Your task to perform on an android device: turn on improve location accuracy Image 0: 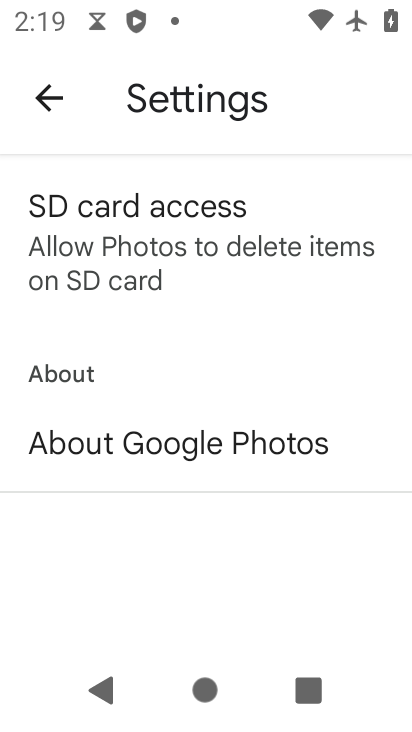
Step 0: press home button
Your task to perform on an android device: turn on improve location accuracy Image 1: 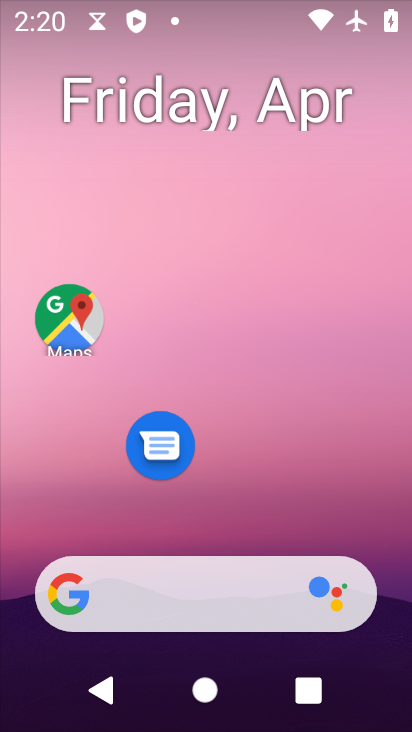
Step 1: drag from (277, 521) to (255, 204)
Your task to perform on an android device: turn on improve location accuracy Image 2: 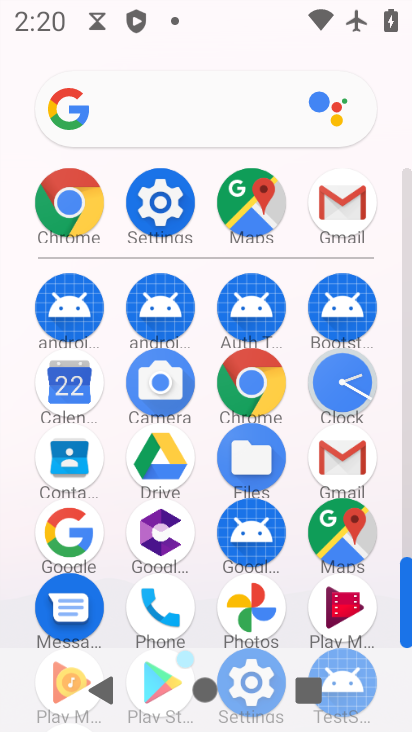
Step 2: click (174, 211)
Your task to perform on an android device: turn on improve location accuracy Image 3: 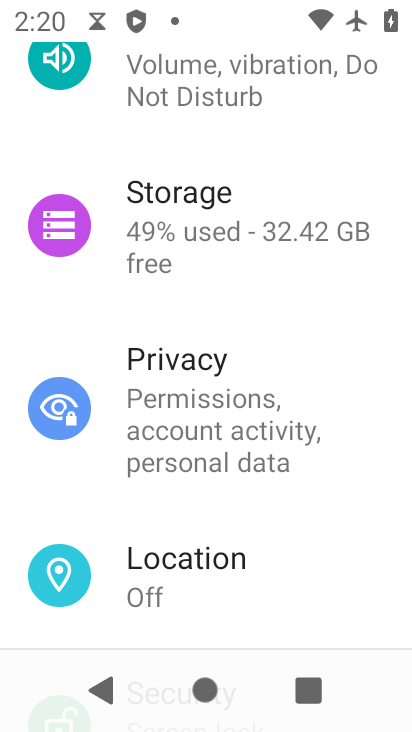
Step 3: click (259, 564)
Your task to perform on an android device: turn on improve location accuracy Image 4: 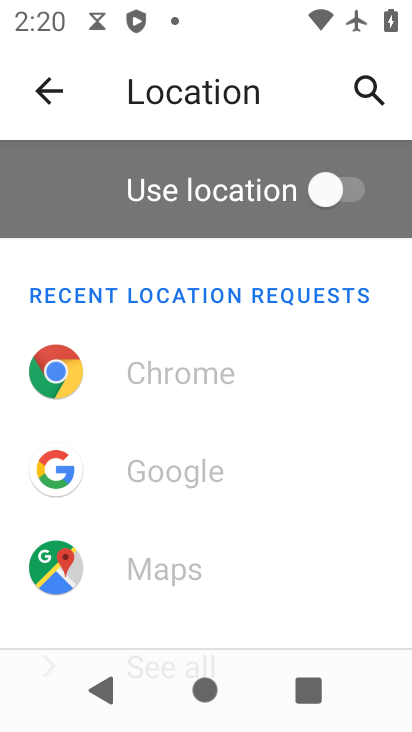
Step 4: drag from (275, 536) to (249, 253)
Your task to perform on an android device: turn on improve location accuracy Image 5: 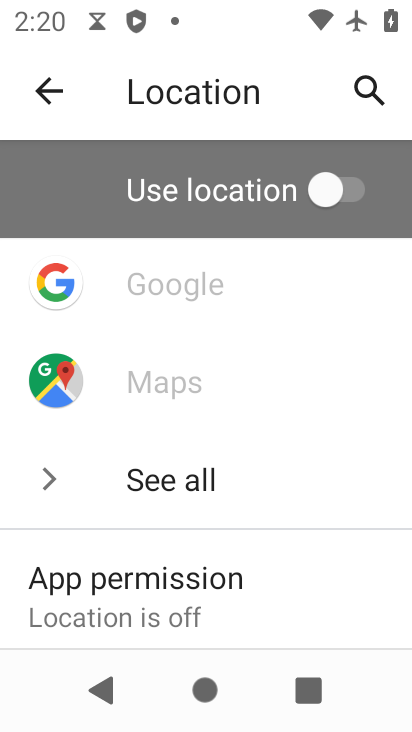
Step 5: drag from (229, 592) to (205, 360)
Your task to perform on an android device: turn on improve location accuracy Image 6: 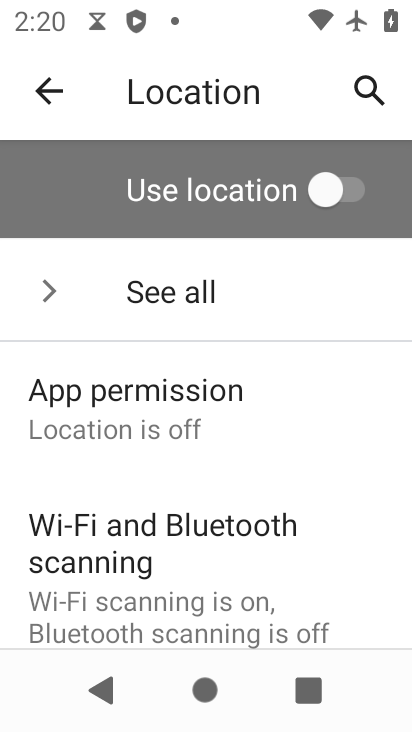
Step 6: drag from (247, 565) to (241, 383)
Your task to perform on an android device: turn on improve location accuracy Image 7: 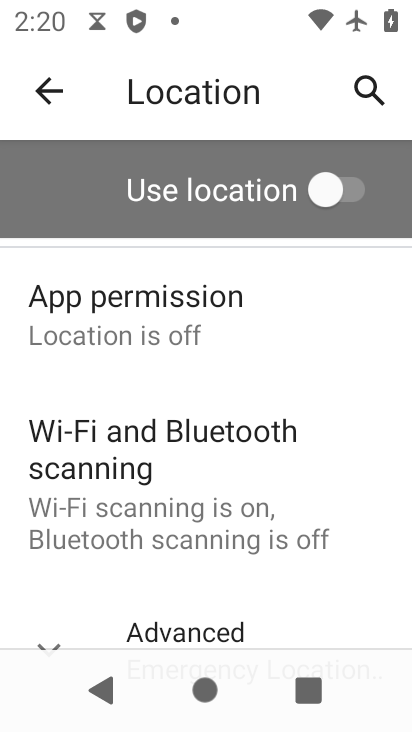
Step 7: drag from (250, 570) to (238, 343)
Your task to perform on an android device: turn on improve location accuracy Image 8: 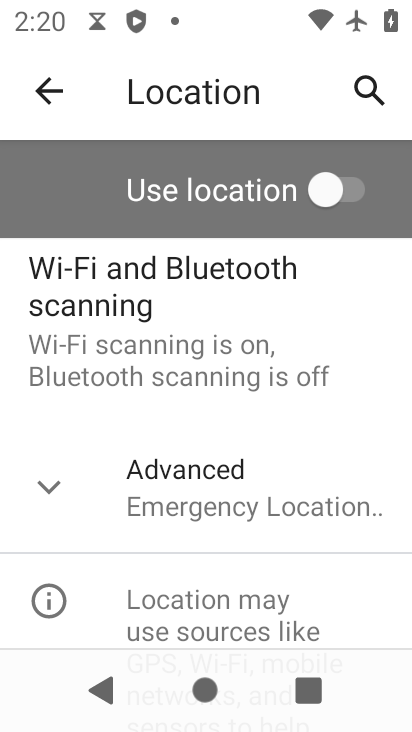
Step 8: click (273, 533)
Your task to perform on an android device: turn on improve location accuracy Image 9: 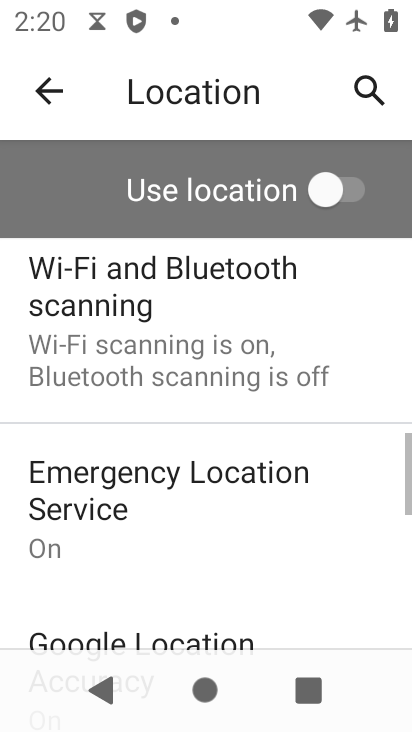
Step 9: drag from (221, 605) to (212, 410)
Your task to perform on an android device: turn on improve location accuracy Image 10: 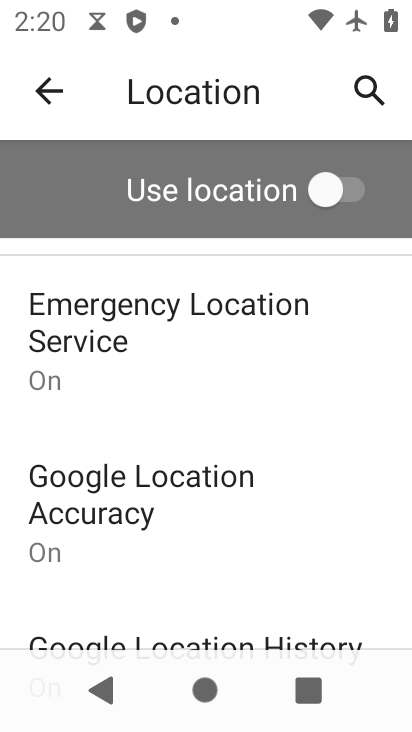
Step 10: drag from (247, 589) to (234, 367)
Your task to perform on an android device: turn on improve location accuracy Image 11: 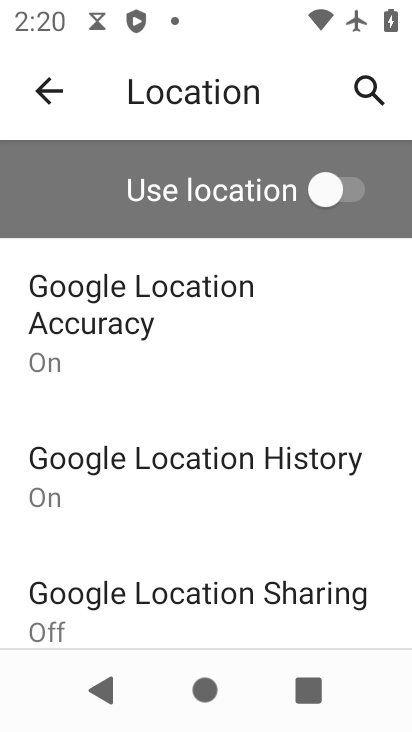
Step 11: drag from (237, 566) to (230, 462)
Your task to perform on an android device: turn on improve location accuracy Image 12: 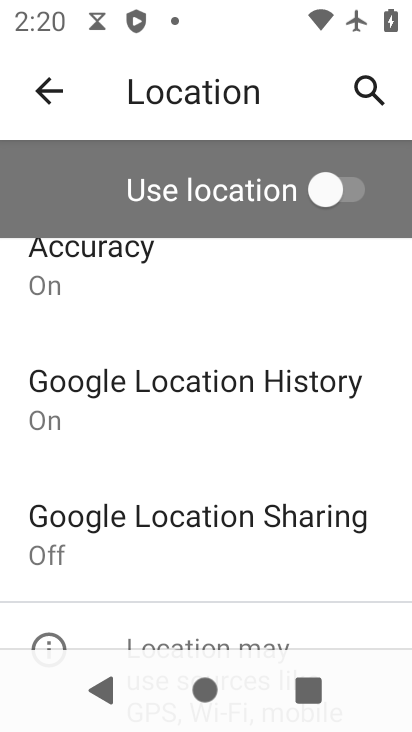
Step 12: click (205, 299)
Your task to perform on an android device: turn on improve location accuracy Image 13: 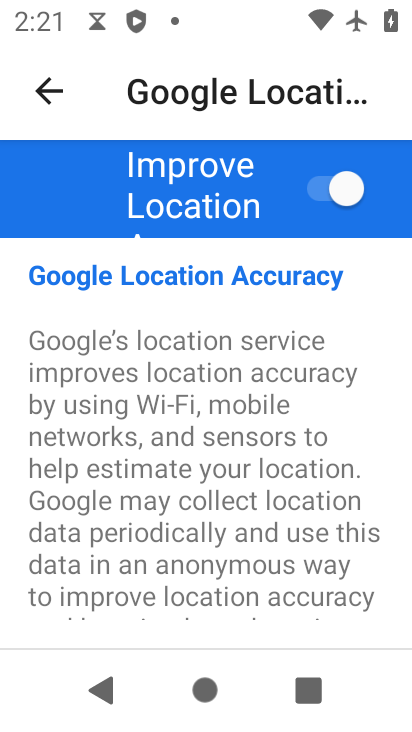
Step 13: task complete